Your task to perform on an android device: Search for seafood restaurants on Google Maps Image 0: 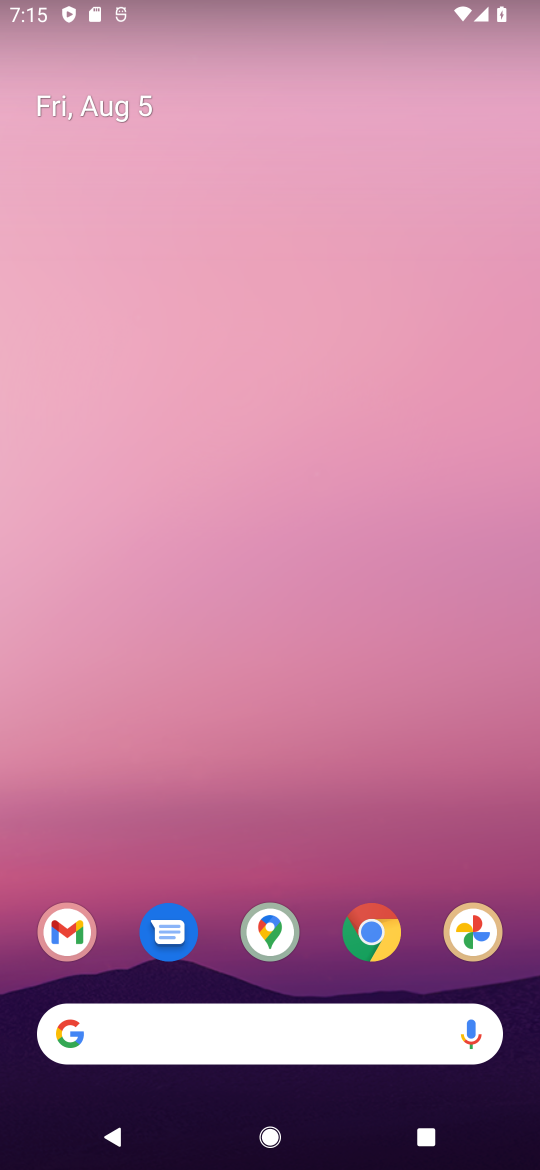
Step 0: drag from (334, 644) to (398, 84)
Your task to perform on an android device: Search for seafood restaurants on Google Maps Image 1: 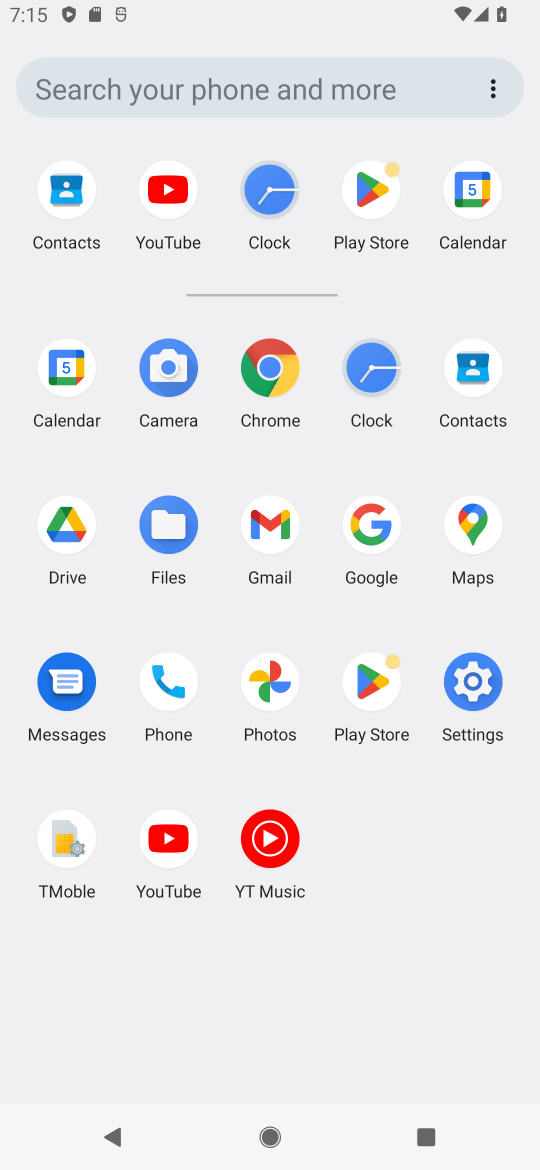
Step 1: click (468, 515)
Your task to perform on an android device: Search for seafood restaurants on Google Maps Image 2: 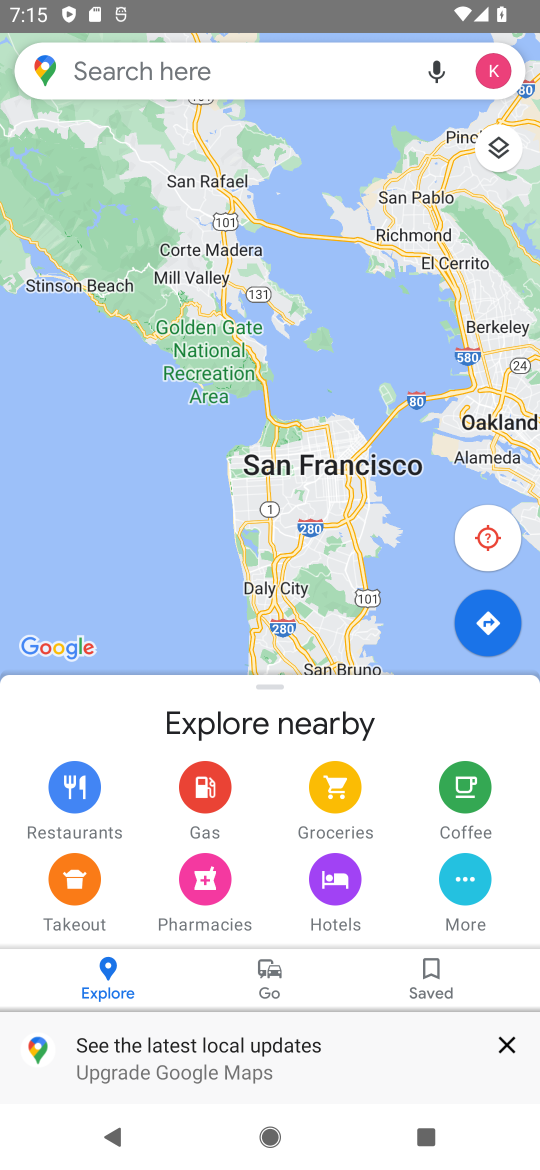
Step 2: click (209, 66)
Your task to perform on an android device: Search for seafood restaurants on Google Maps Image 3: 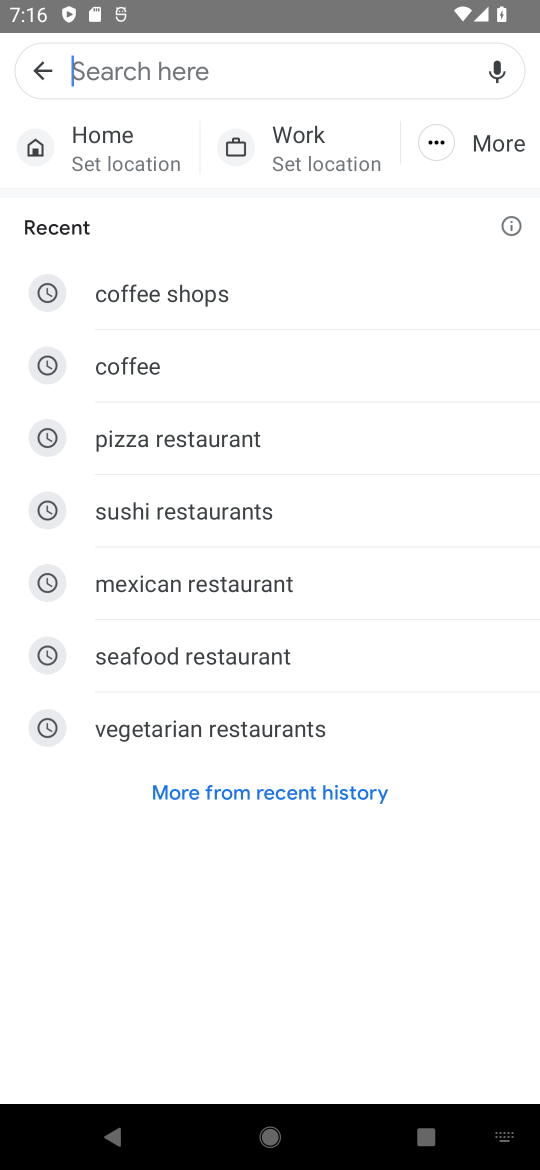
Step 3: type "seafood restaurants"
Your task to perform on an android device: Search for seafood restaurants on Google Maps Image 4: 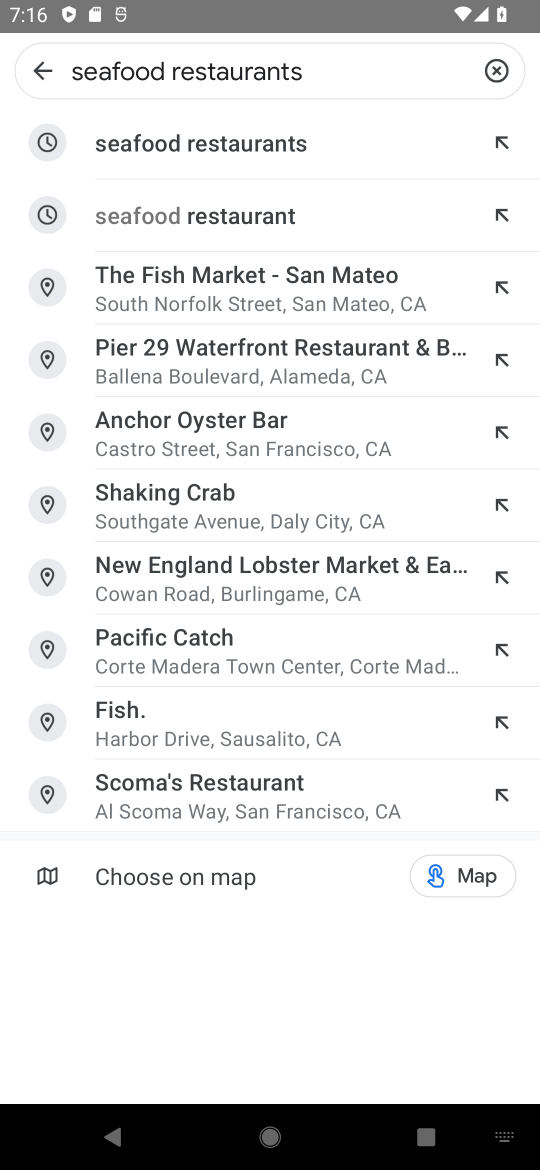
Step 4: click (241, 148)
Your task to perform on an android device: Search for seafood restaurants on Google Maps Image 5: 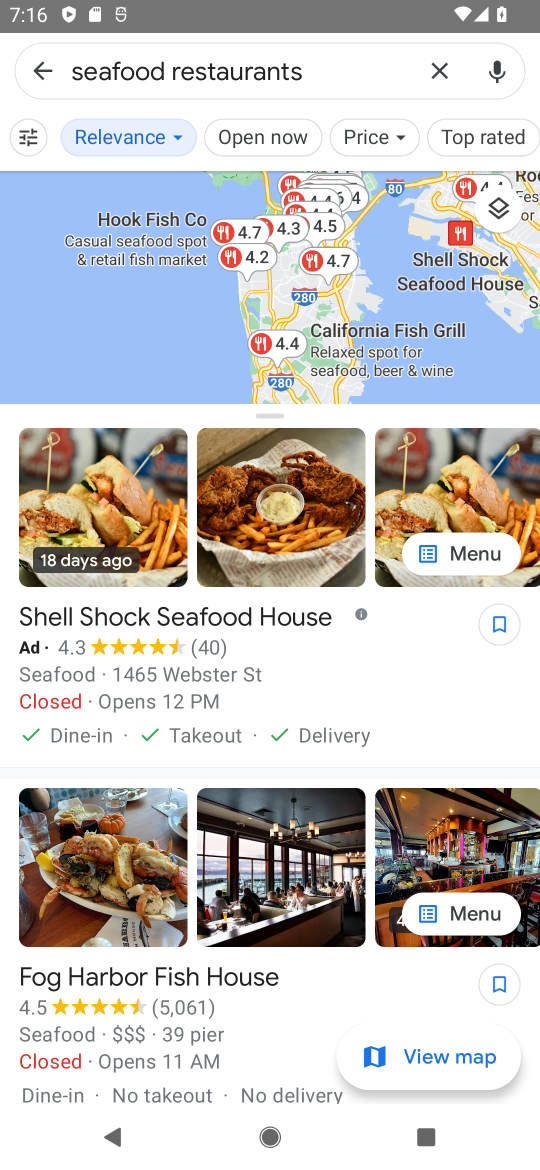
Step 5: task complete